Your task to perform on an android device: search for starred emails in the gmail app Image 0: 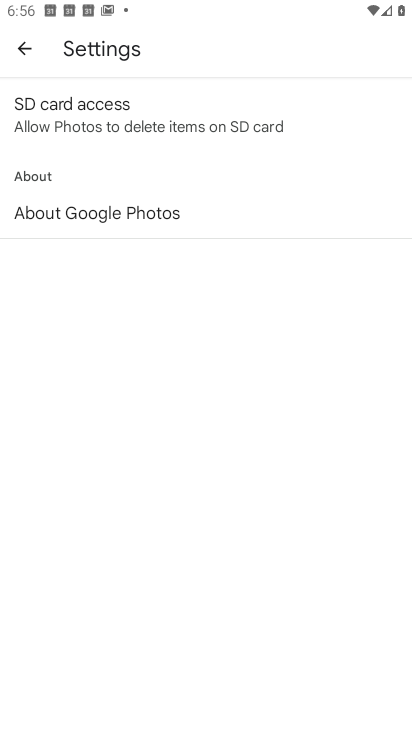
Step 0: press home button
Your task to perform on an android device: search for starred emails in the gmail app Image 1: 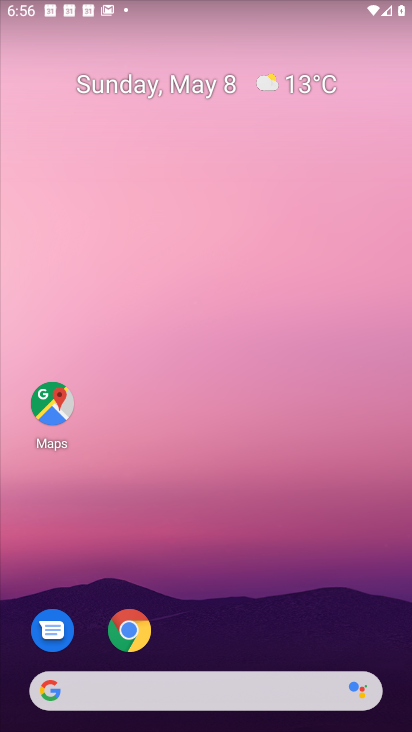
Step 1: drag from (221, 603) to (108, 14)
Your task to perform on an android device: search for starred emails in the gmail app Image 2: 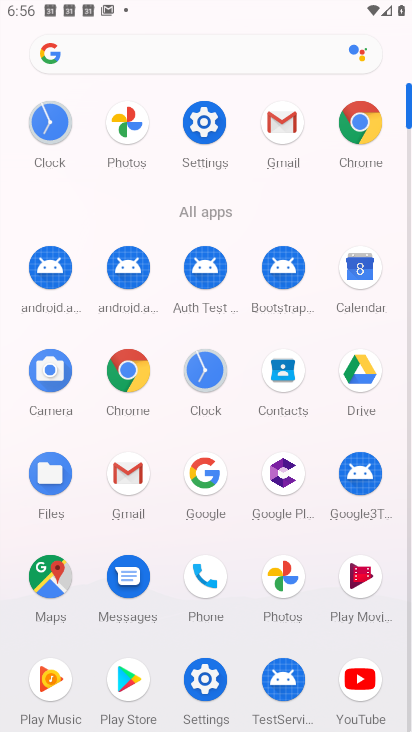
Step 2: click (127, 471)
Your task to perform on an android device: search for starred emails in the gmail app Image 3: 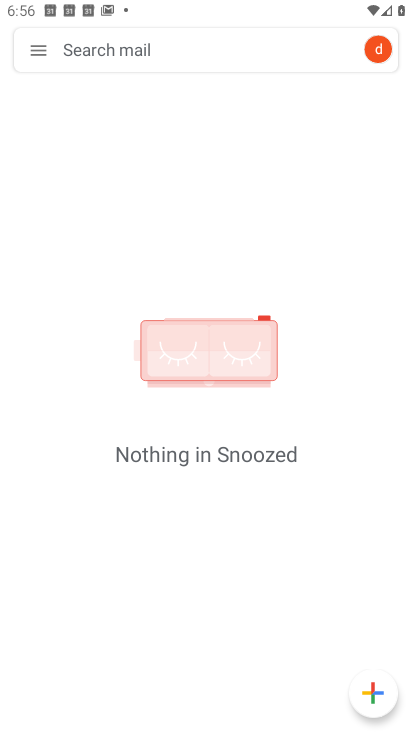
Step 3: click (41, 51)
Your task to perform on an android device: search for starred emails in the gmail app Image 4: 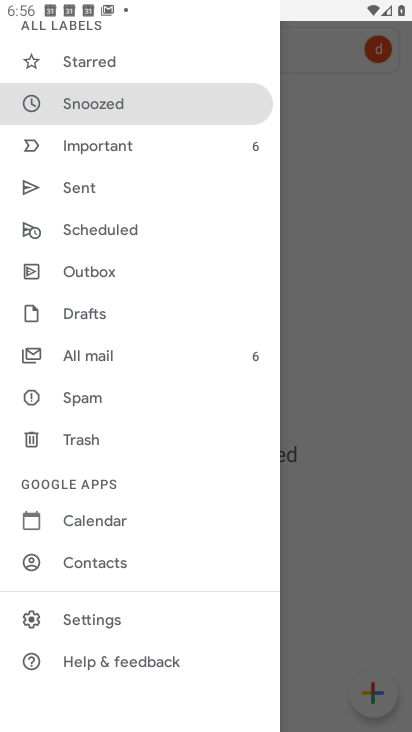
Step 4: click (89, 58)
Your task to perform on an android device: search for starred emails in the gmail app Image 5: 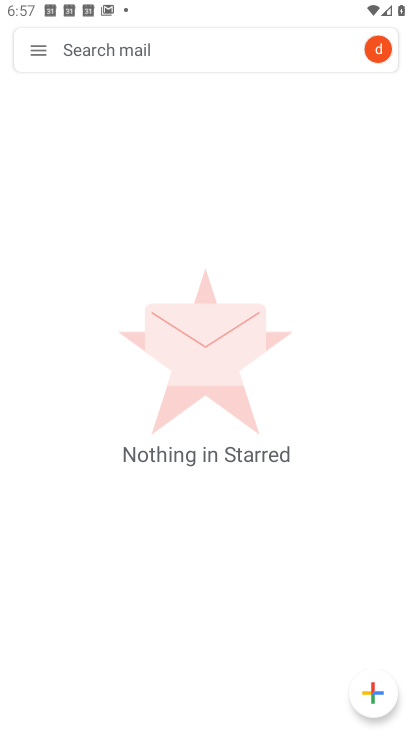
Step 5: task complete